Your task to perform on an android device: turn off notifications settings in the gmail app Image 0: 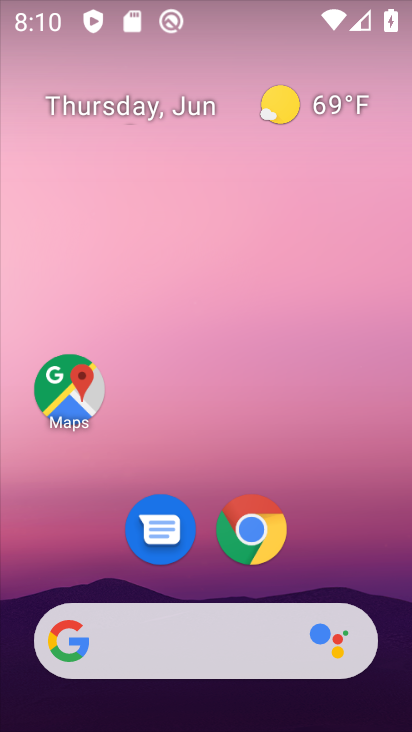
Step 0: drag from (215, 587) to (151, 174)
Your task to perform on an android device: turn off notifications settings in the gmail app Image 1: 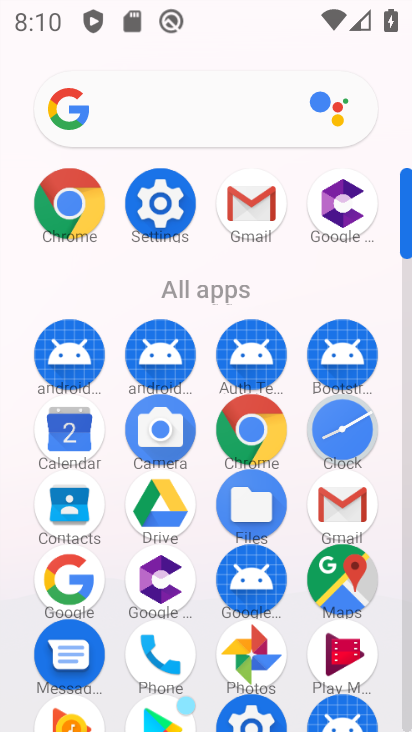
Step 1: click (333, 506)
Your task to perform on an android device: turn off notifications settings in the gmail app Image 2: 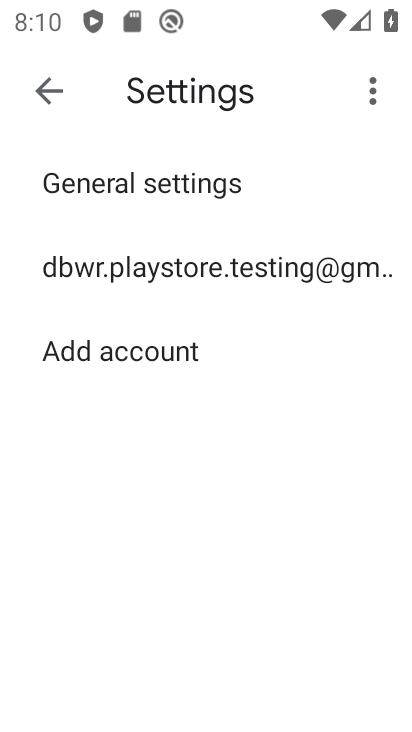
Step 2: click (119, 196)
Your task to perform on an android device: turn off notifications settings in the gmail app Image 3: 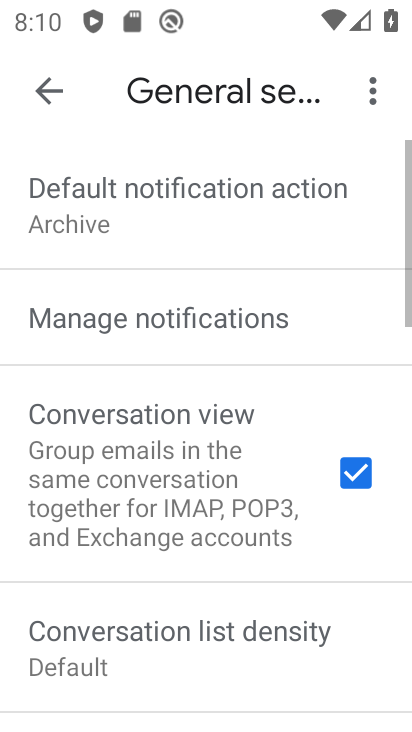
Step 3: click (203, 337)
Your task to perform on an android device: turn off notifications settings in the gmail app Image 4: 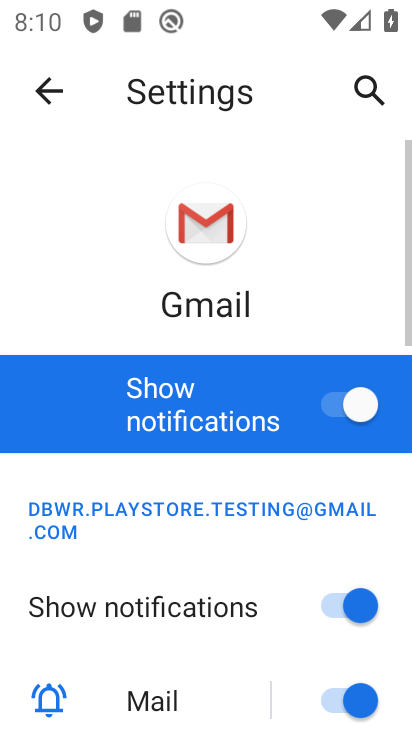
Step 4: click (330, 414)
Your task to perform on an android device: turn off notifications settings in the gmail app Image 5: 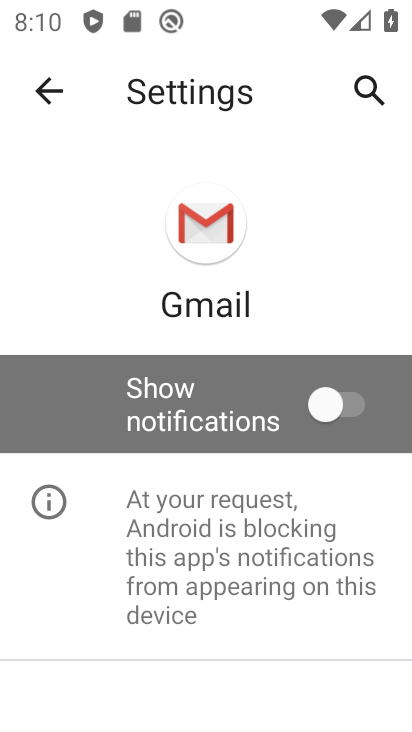
Step 5: task complete